Your task to perform on an android device: Search for logitech g502 on amazon, select the first entry, and add it to the cart. Image 0: 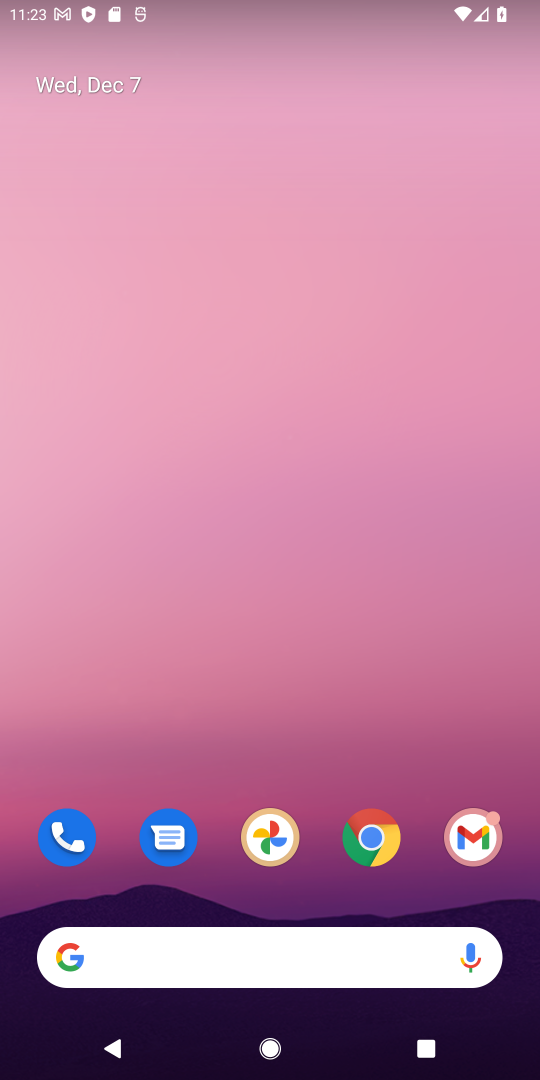
Step 0: click (366, 839)
Your task to perform on an android device: Search for logitech g502 on amazon, select the first entry, and add it to the cart. Image 1: 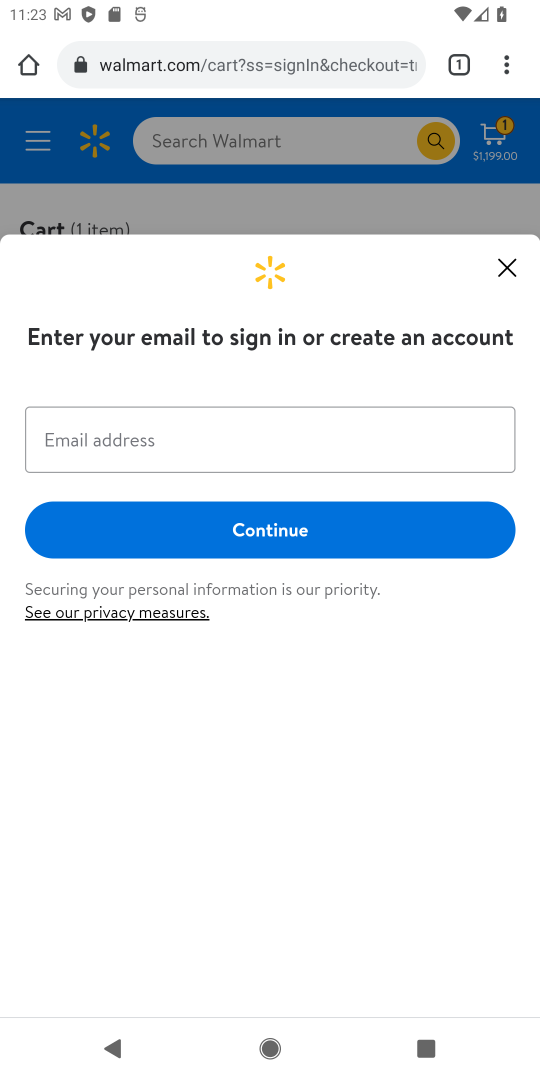
Step 1: click (298, 54)
Your task to perform on an android device: Search for logitech g502 on amazon, select the first entry, and add it to the cart. Image 2: 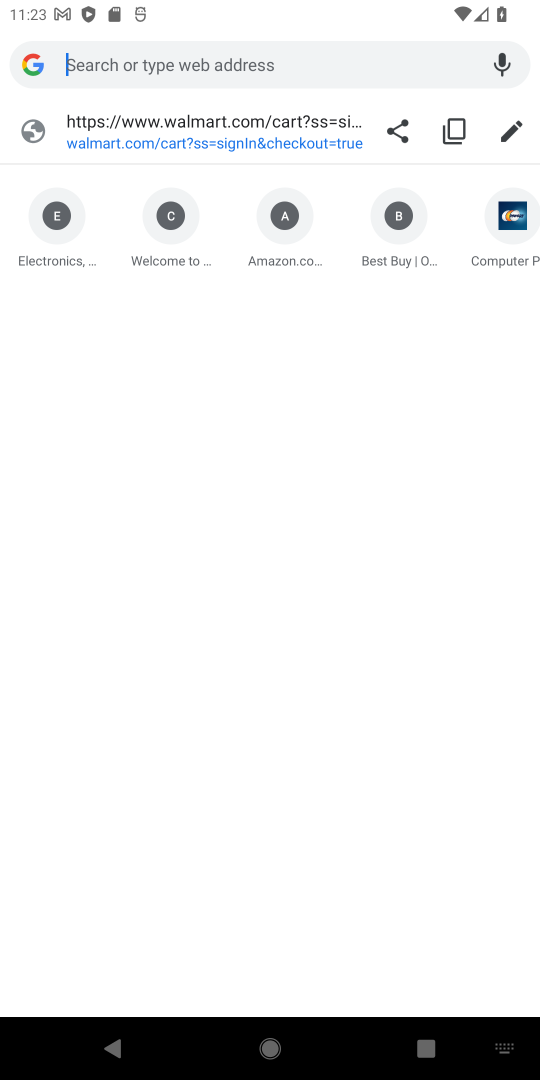
Step 2: type "amazon"
Your task to perform on an android device: Search for logitech g502 on amazon, select the first entry, and add it to the cart. Image 3: 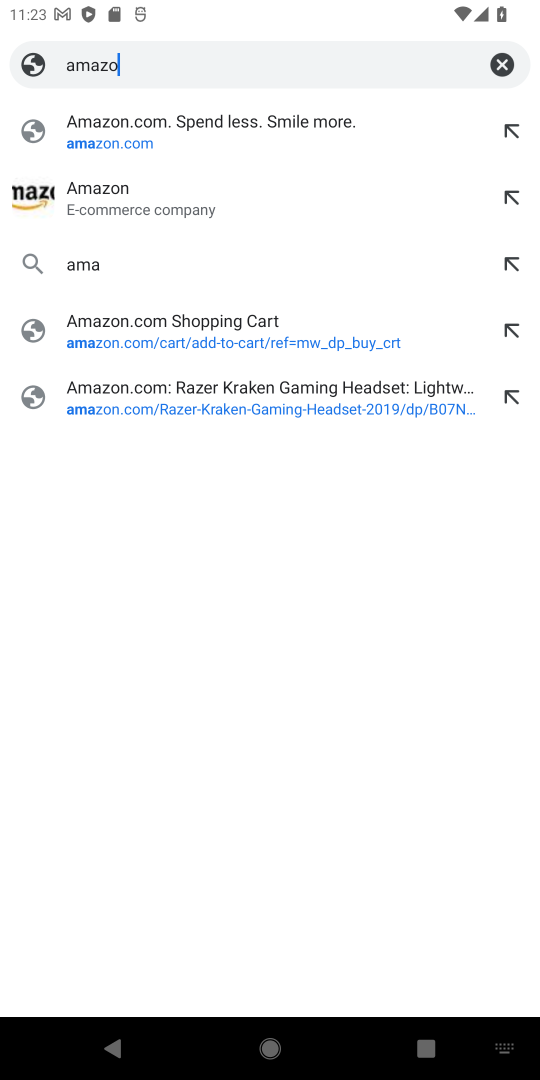
Step 3: press enter
Your task to perform on an android device: Search for logitech g502 on amazon, select the first entry, and add it to the cart. Image 4: 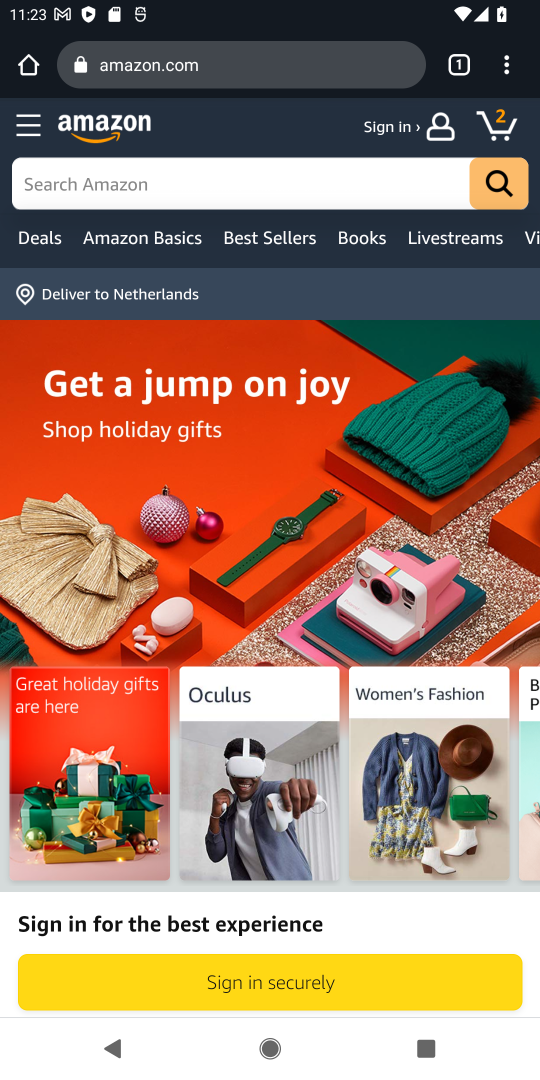
Step 4: click (312, 180)
Your task to perform on an android device: Search for logitech g502 on amazon, select the first entry, and add it to the cart. Image 5: 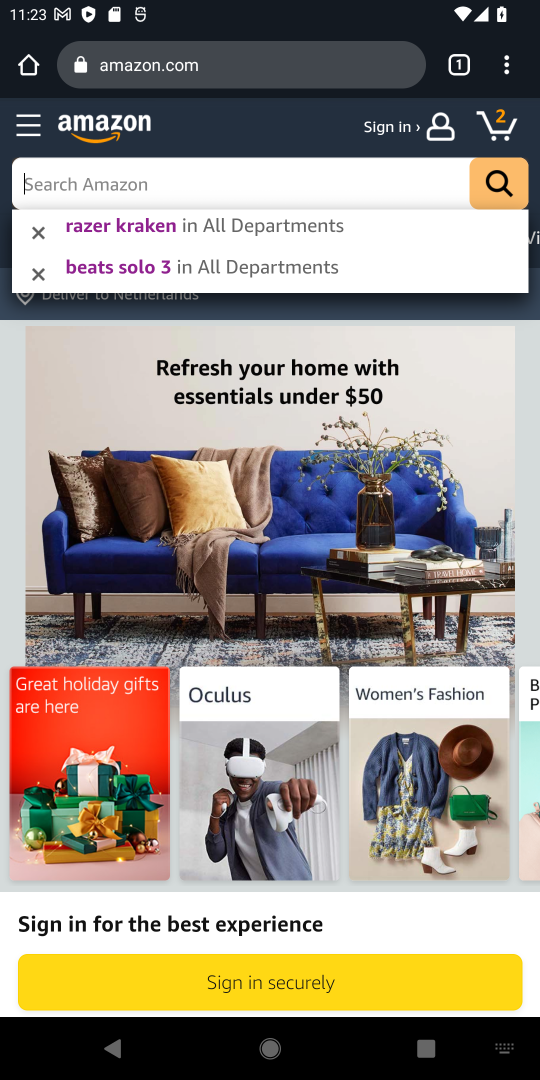
Step 5: type "logitech g502"
Your task to perform on an android device: Search for logitech g502 on amazon, select the first entry, and add it to the cart. Image 6: 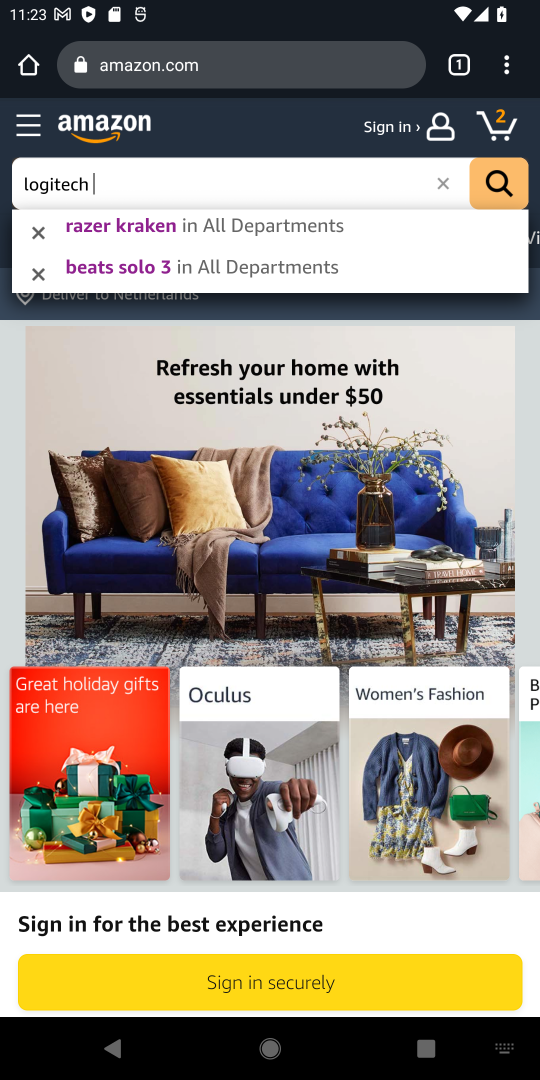
Step 6: press enter
Your task to perform on an android device: Search for logitech g502 on amazon, select the first entry, and add it to the cart. Image 7: 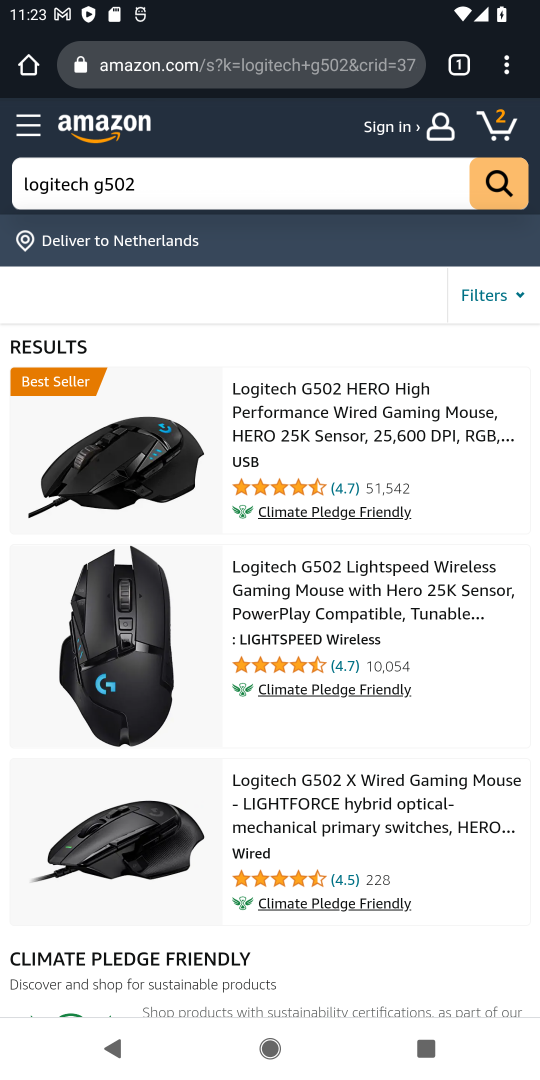
Step 7: click (361, 400)
Your task to perform on an android device: Search for logitech g502 on amazon, select the first entry, and add it to the cart. Image 8: 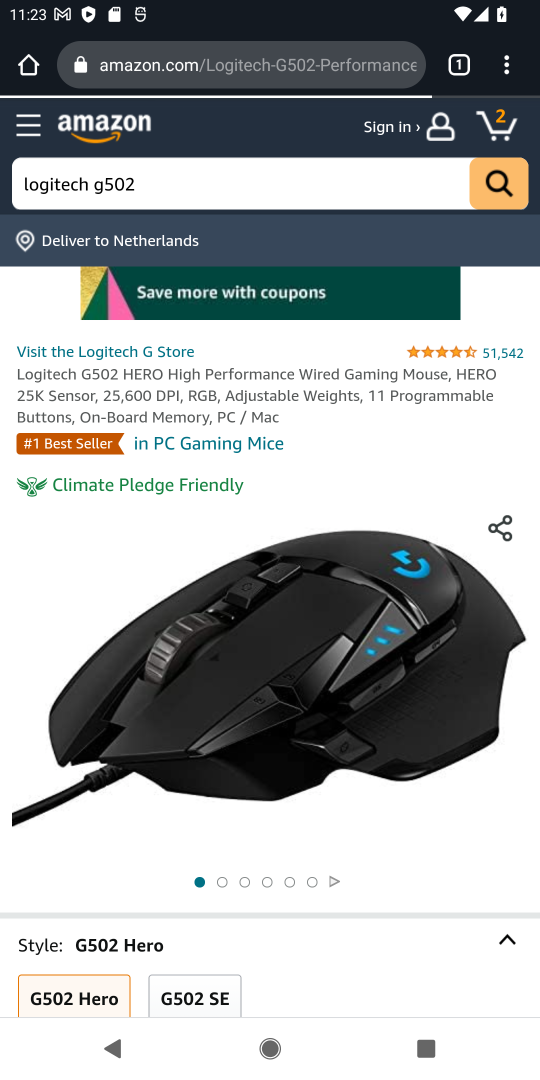
Step 8: drag from (462, 652) to (482, 368)
Your task to perform on an android device: Search for logitech g502 on amazon, select the first entry, and add it to the cart. Image 9: 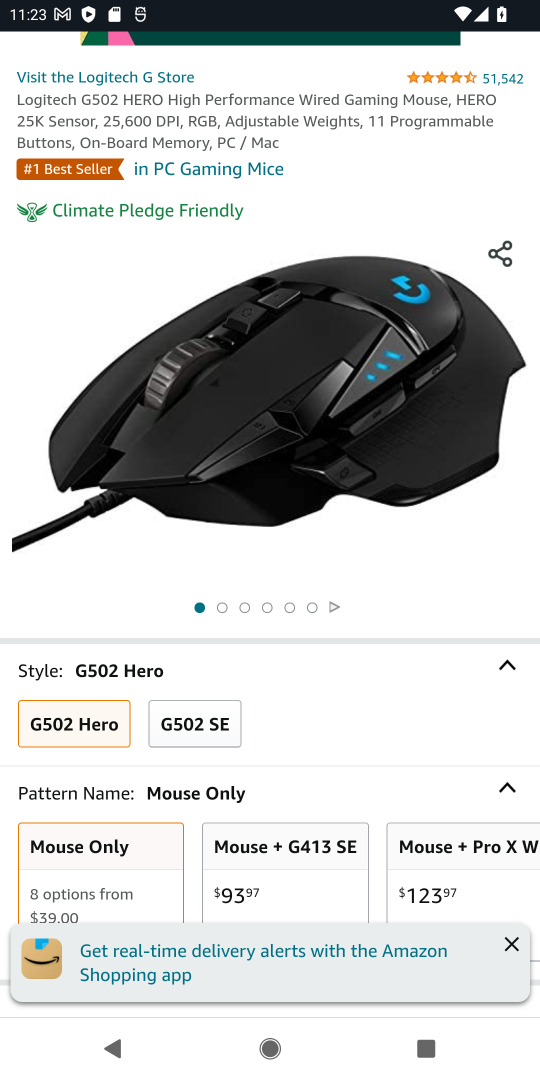
Step 9: drag from (399, 594) to (446, 267)
Your task to perform on an android device: Search for logitech g502 on amazon, select the first entry, and add it to the cart. Image 10: 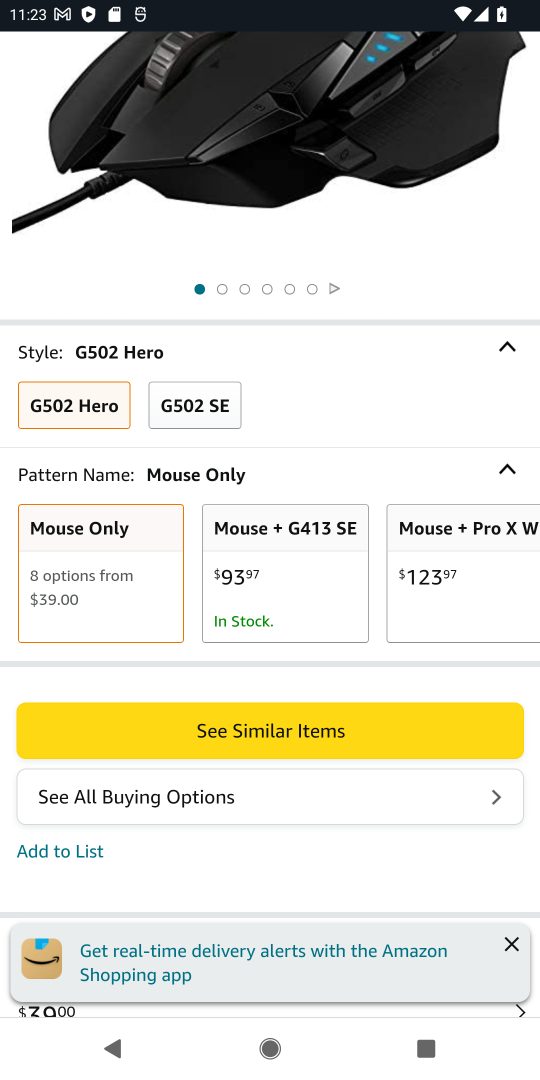
Step 10: press back button
Your task to perform on an android device: Search for logitech g502 on amazon, select the first entry, and add it to the cart. Image 11: 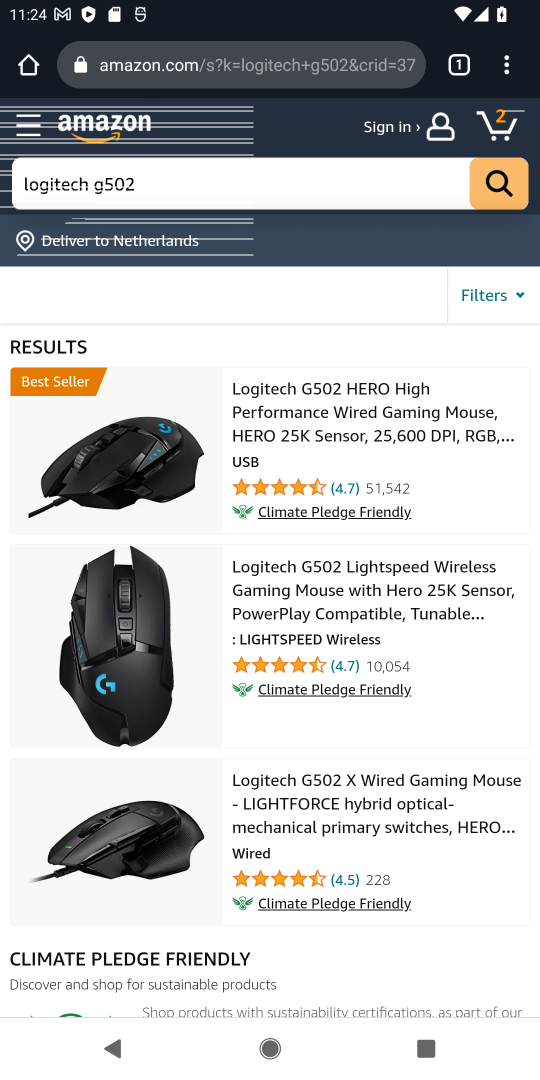
Step 11: click (125, 651)
Your task to perform on an android device: Search for logitech g502 on amazon, select the first entry, and add it to the cart. Image 12: 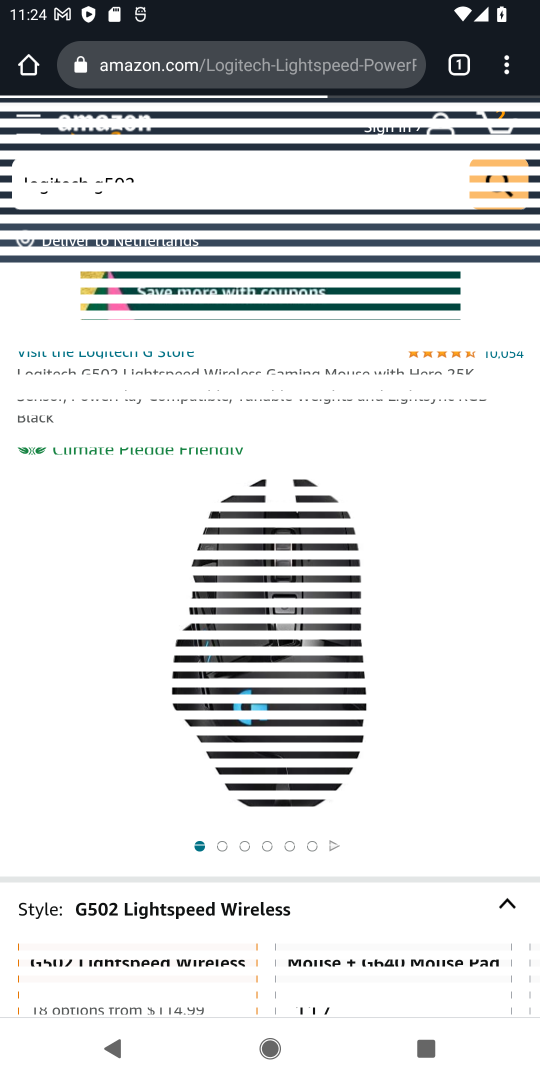
Step 12: drag from (465, 671) to (446, 278)
Your task to perform on an android device: Search for logitech g502 on amazon, select the first entry, and add it to the cart. Image 13: 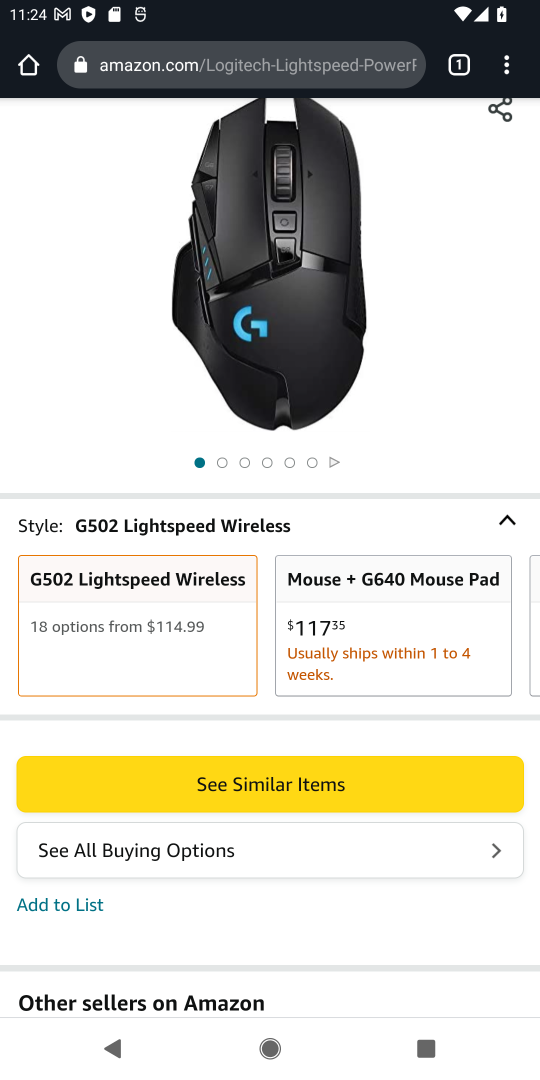
Step 13: press back button
Your task to perform on an android device: Search for logitech g502 on amazon, select the first entry, and add it to the cart. Image 14: 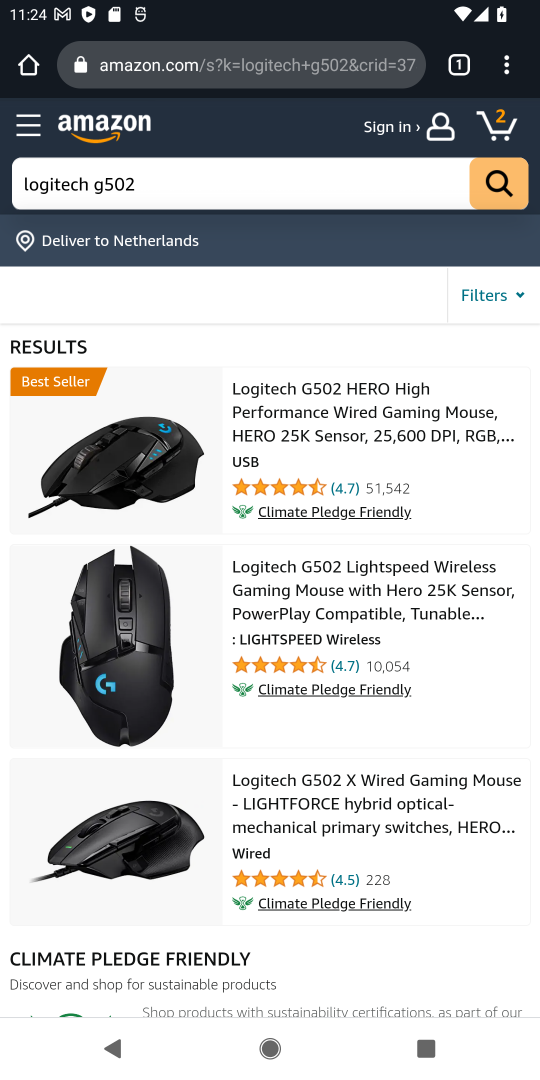
Step 14: click (119, 847)
Your task to perform on an android device: Search for logitech g502 on amazon, select the first entry, and add it to the cart. Image 15: 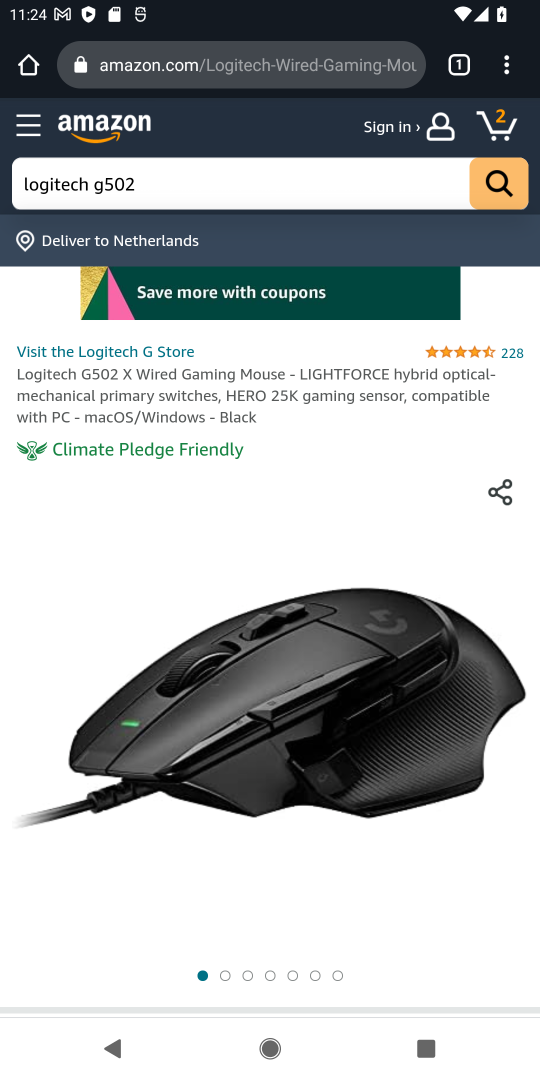
Step 15: drag from (327, 854) to (417, 319)
Your task to perform on an android device: Search for logitech g502 on amazon, select the first entry, and add it to the cart. Image 16: 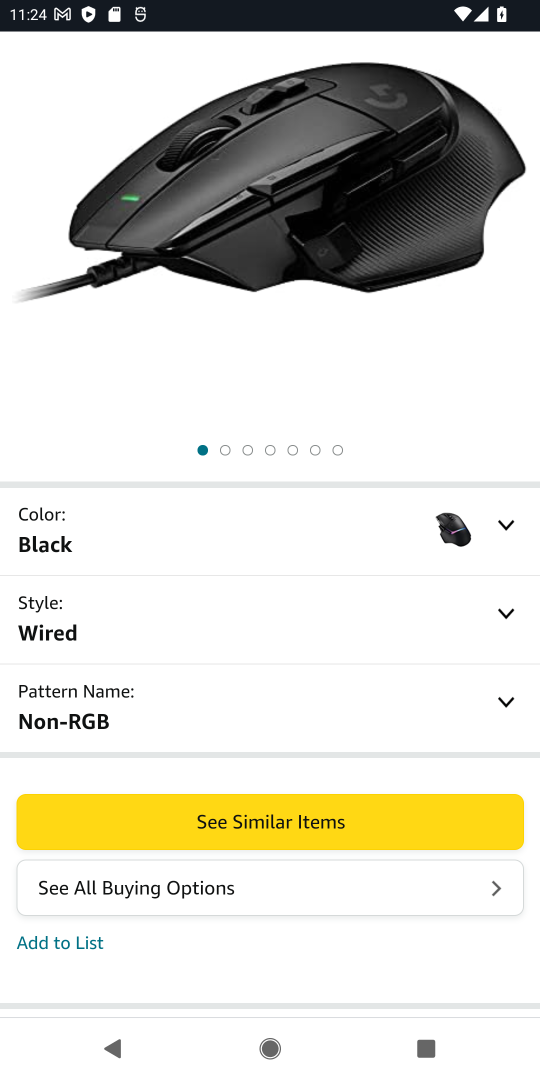
Step 16: press back button
Your task to perform on an android device: Search for logitech g502 on amazon, select the first entry, and add it to the cart. Image 17: 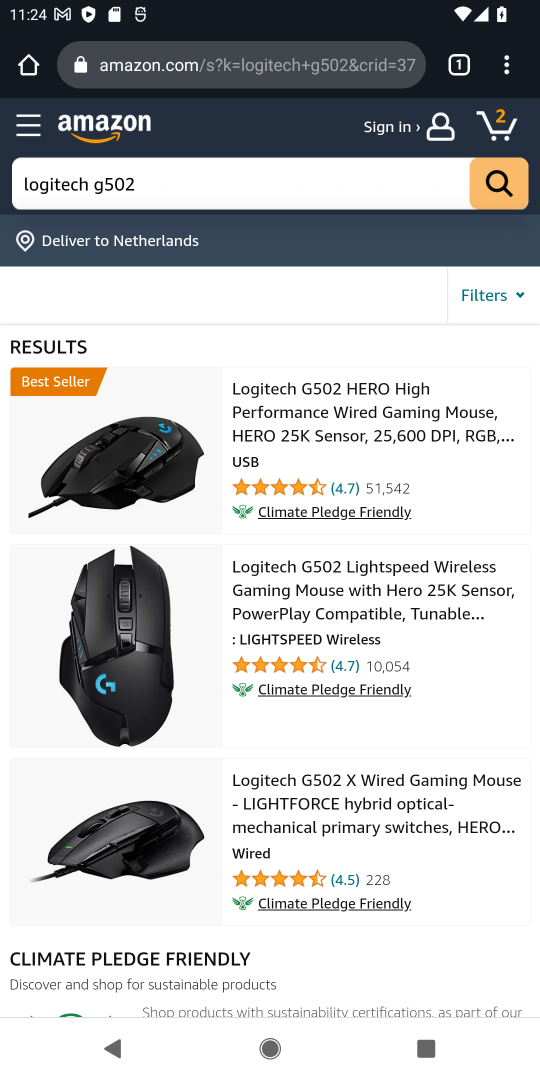
Step 17: drag from (375, 746) to (402, 240)
Your task to perform on an android device: Search for logitech g502 on amazon, select the first entry, and add it to the cart. Image 18: 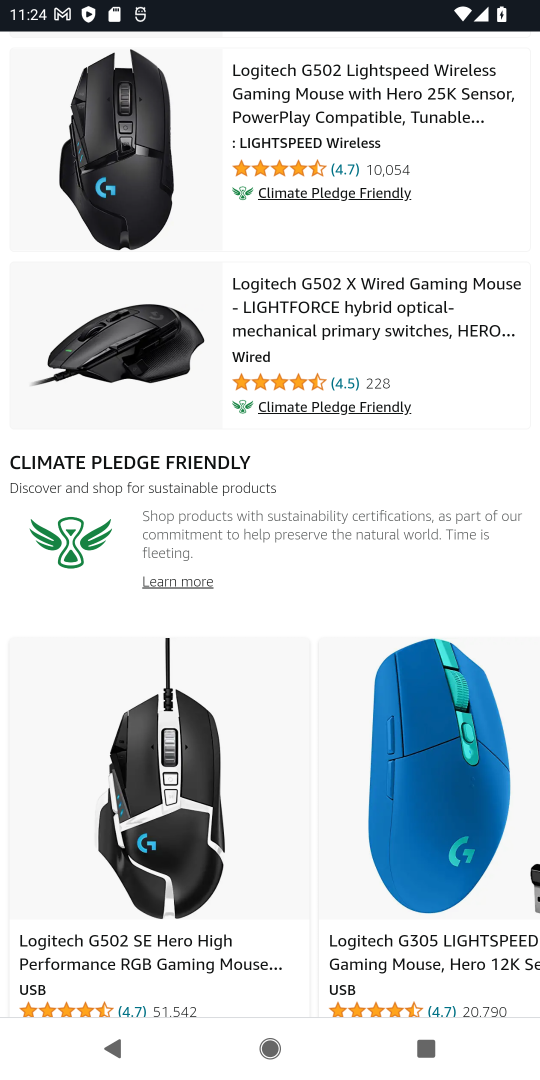
Step 18: click (167, 795)
Your task to perform on an android device: Search for logitech g502 on amazon, select the first entry, and add it to the cart. Image 19: 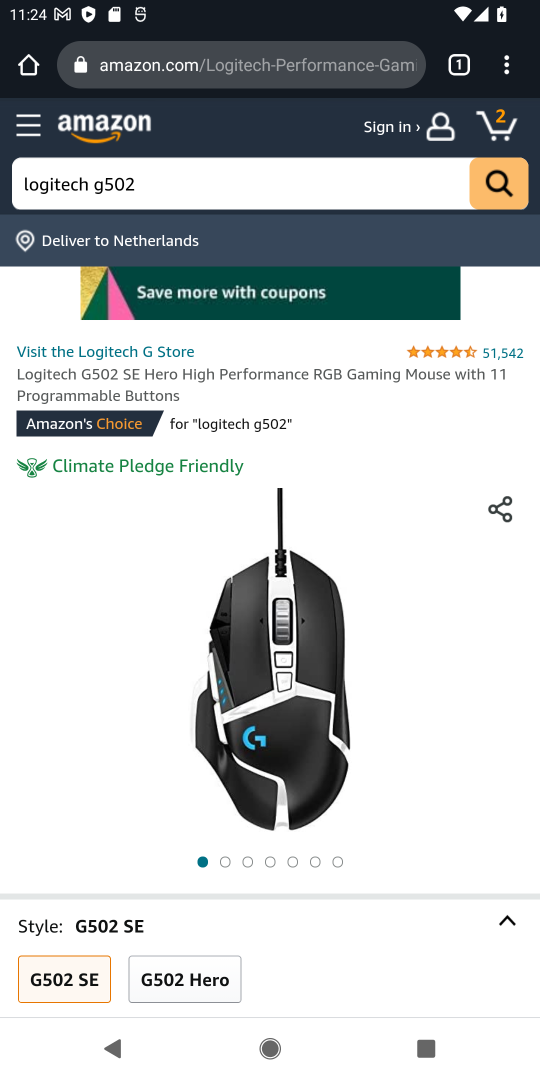
Step 19: drag from (448, 623) to (447, 281)
Your task to perform on an android device: Search for logitech g502 on amazon, select the first entry, and add it to the cart. Image 20: 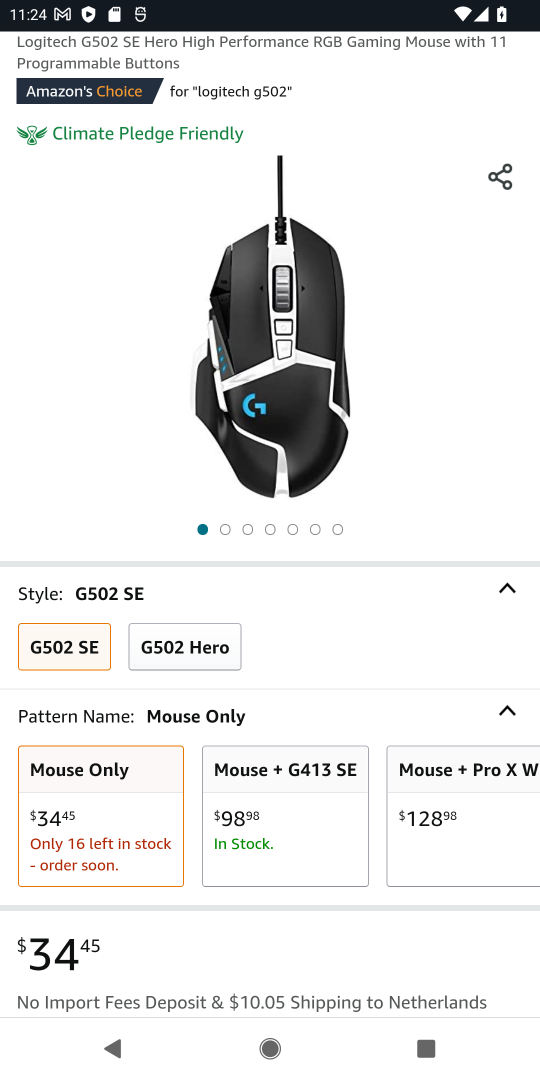
Step 20: drag from (382, 643) to (370, 307)
Your task to perform on an android device: Search for logitech g502 on amazon, select the first entry, and add it to the cart. Image 21: 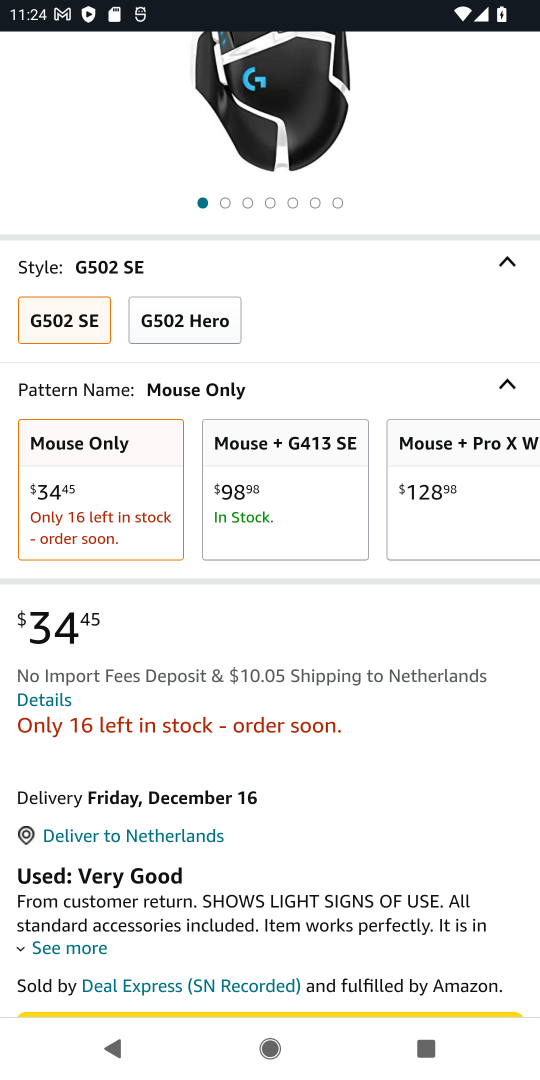
Step 21: drag from (397, 833) to (399, 389)
Your task to perform on an android device: Search for logitech g502 on amazon, select the first entry, and add it to the cart. Image 22: 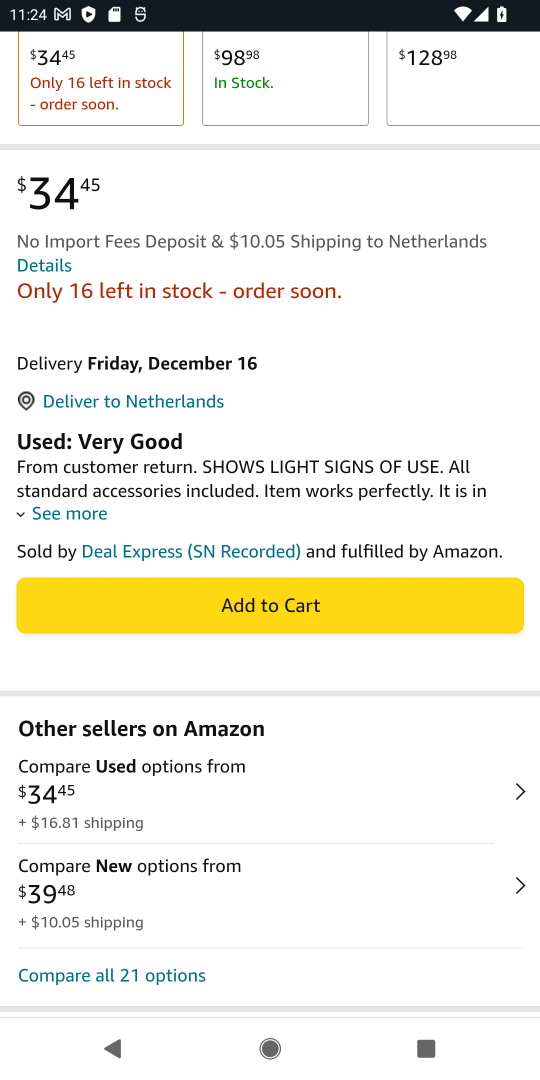
Step 22: click (306, 597)
Your task to perform on an android device: Search for logitech g502 on amazon, select the first entry, and add it to the cart. Image 23: 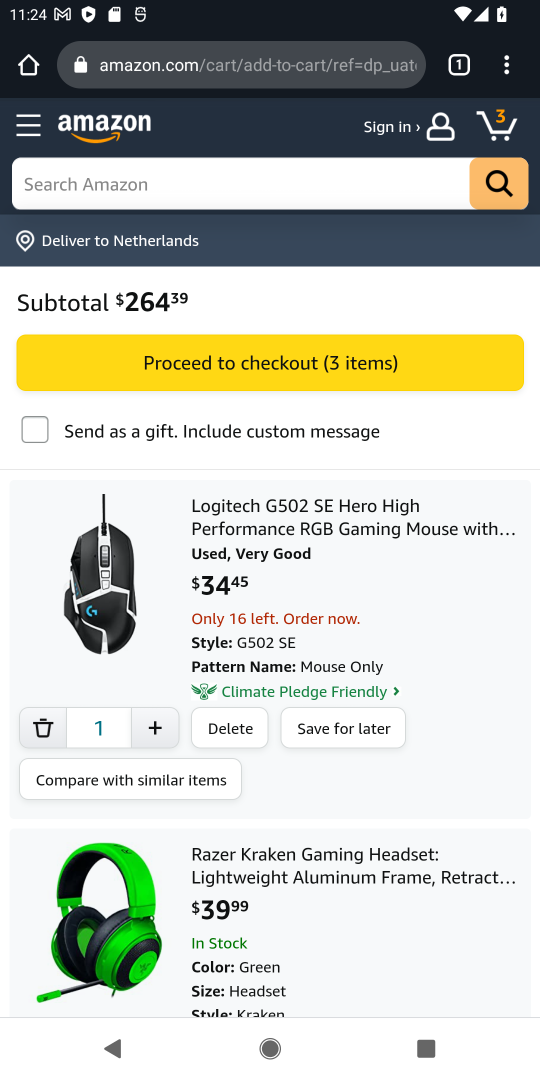
Step 23: task complete